Your task to perform on an android device: install app "Booking.com: Hotels and more" Image 0: 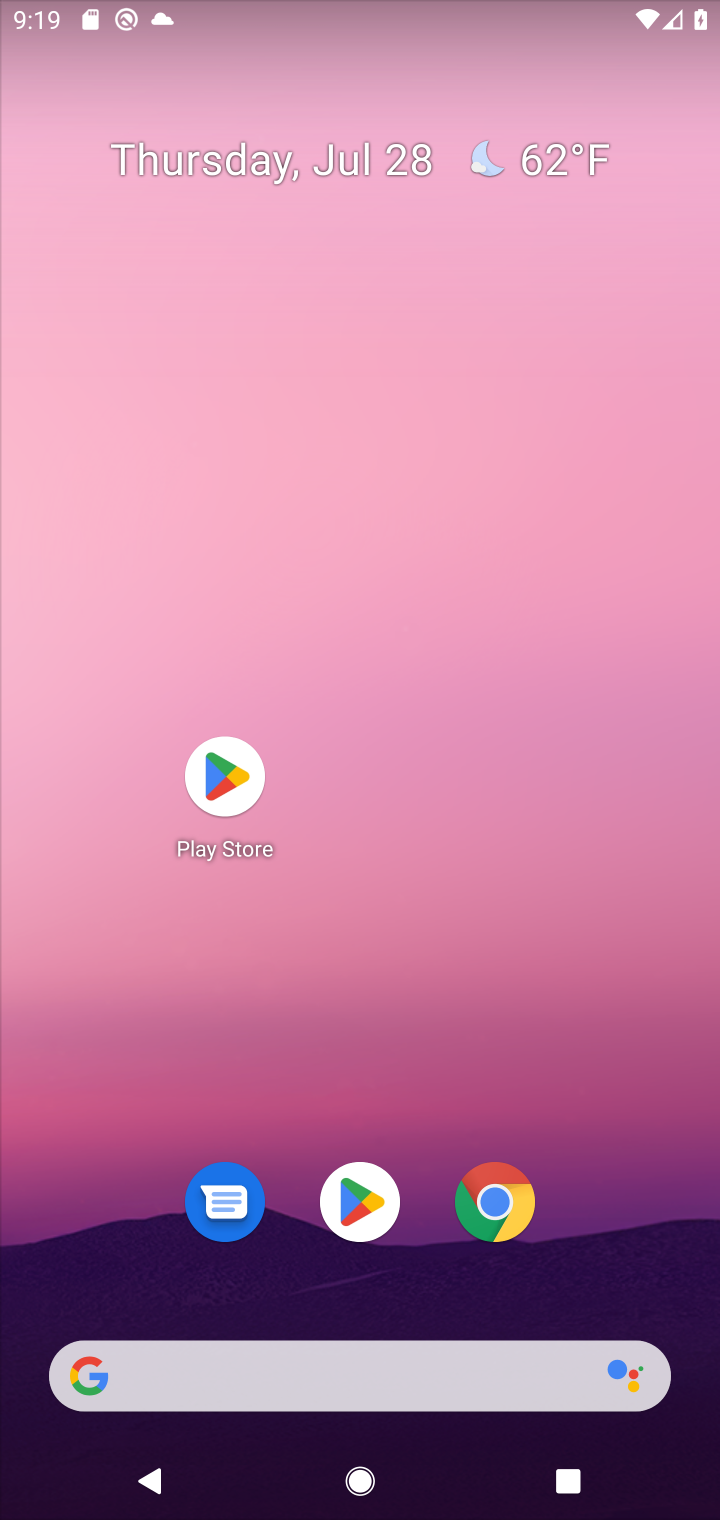
Step 0: click (356, 1198)
Your task to perform on an android device: install app "Booking.com: Hotels and more" Image 1: 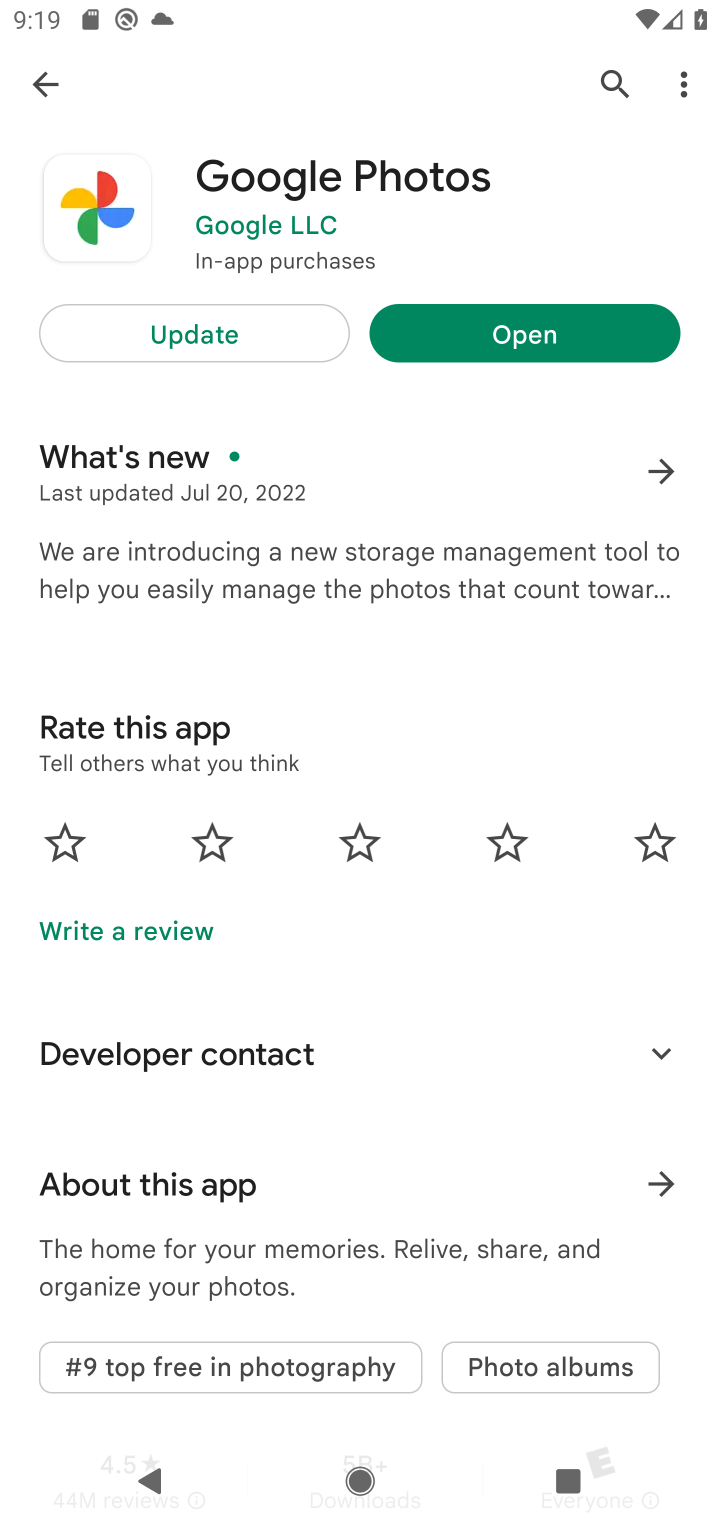
Step 1: click (40, 80)
Your task to perform on an android device: install app "Booking.com: Hotels and more" Image 2: 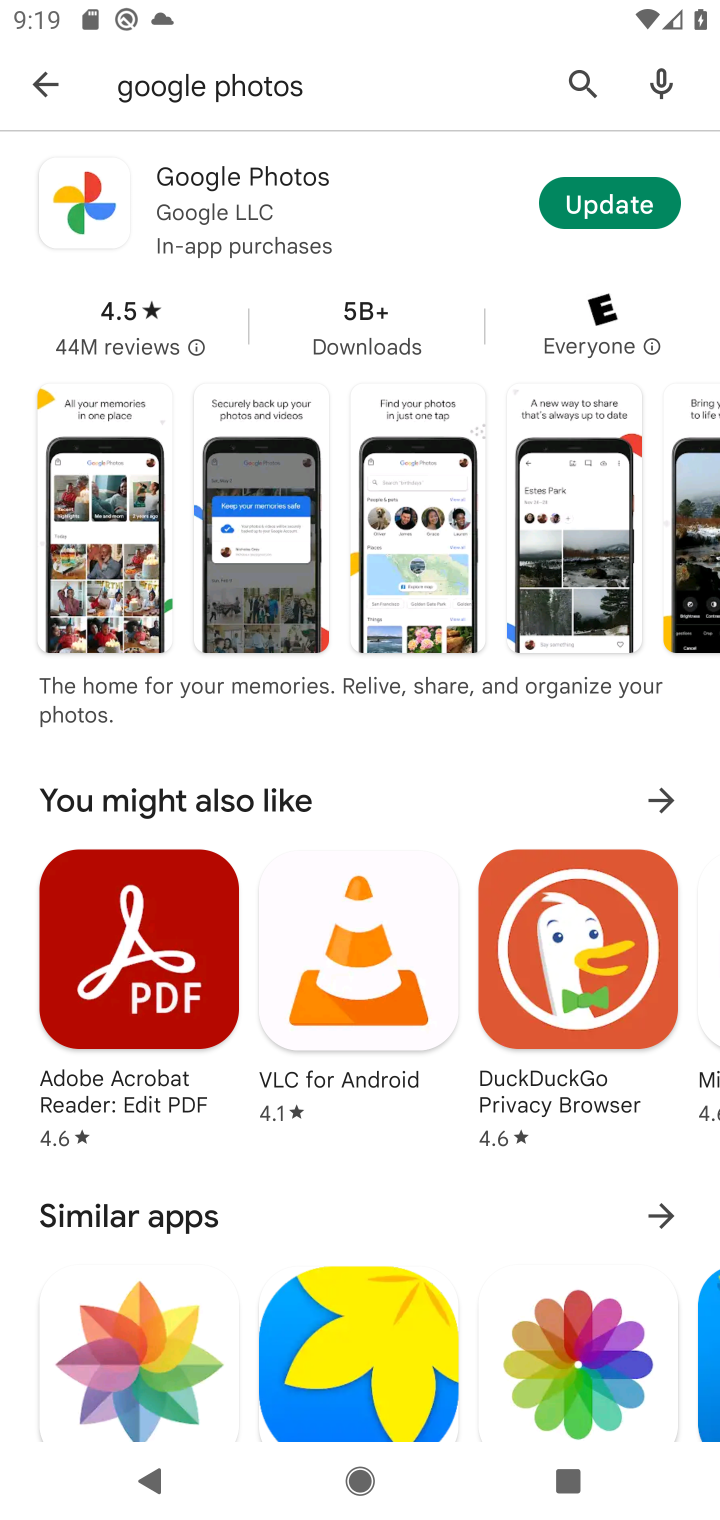
Step 2: click (51, 77)
Your task to perform on an android device: install app "Booking.com: Hotels and more" Image 3: 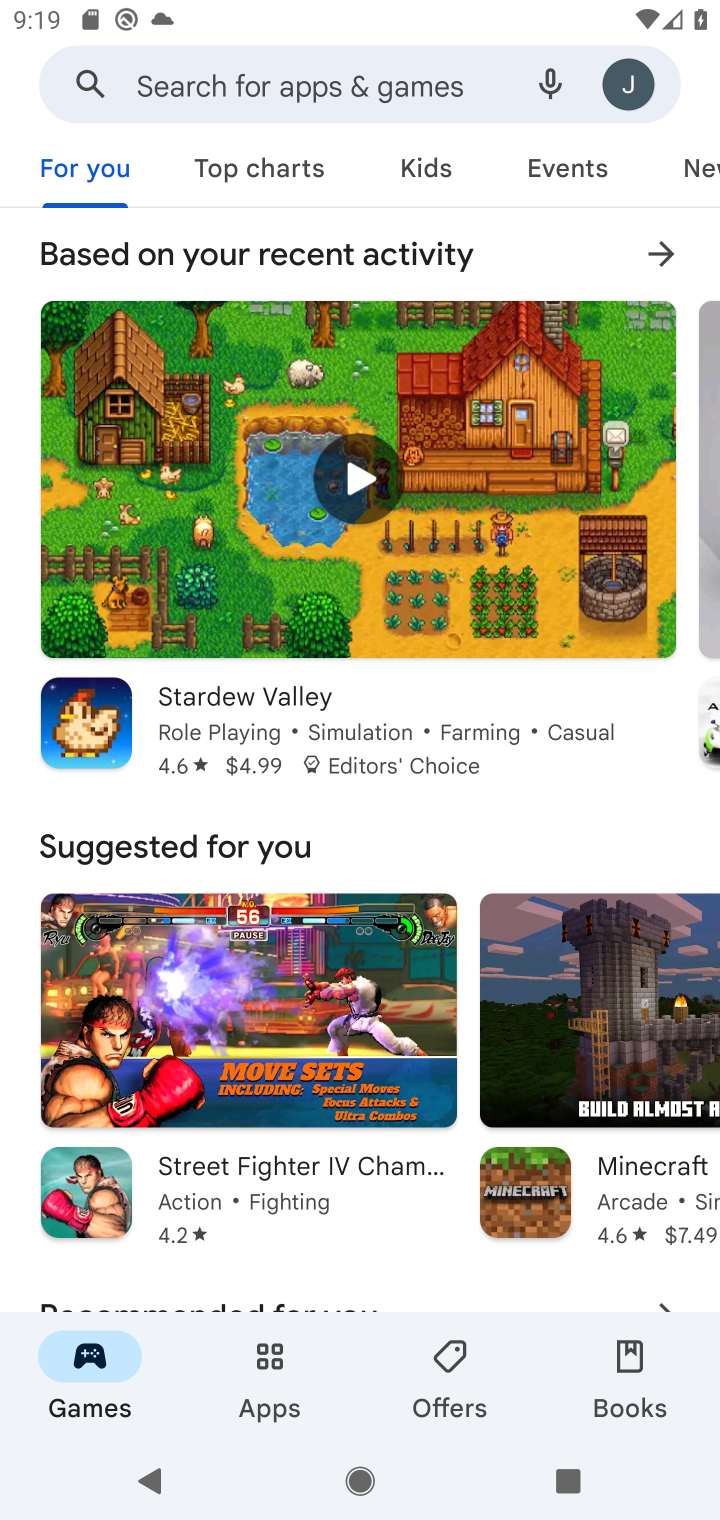
Step 3: click (189, 88)
Your task to perform on an android device: install app "Booking.com: Hotels and more" Image 4: 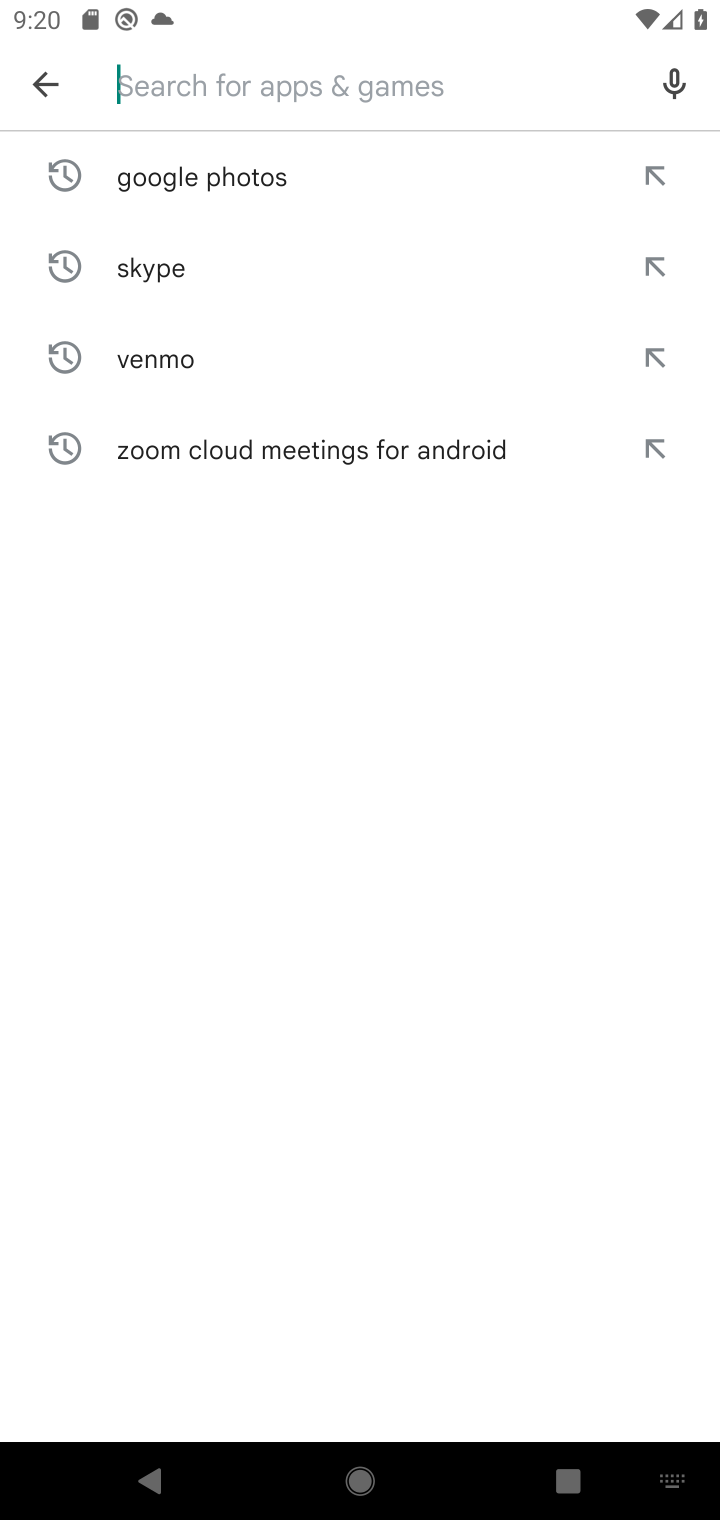
Step 4: type "Booking.com: Hotels and more"
Your task to perform on an android device: install app "Booking.com: Hotels and more" Image 5: 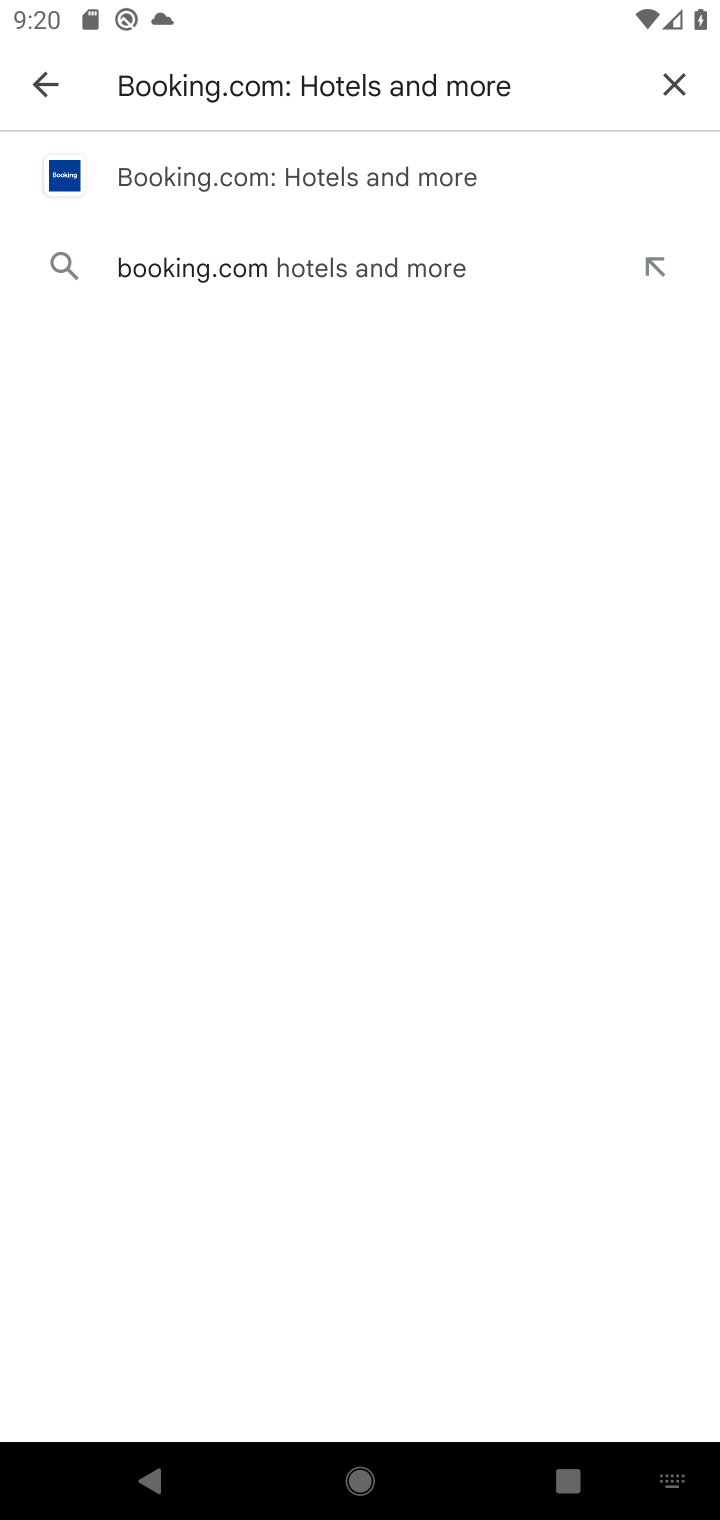
Step 5: click (247, 172)
Your task to perform on an android device: install app "Booking.com: Hotels and more" Image 6: 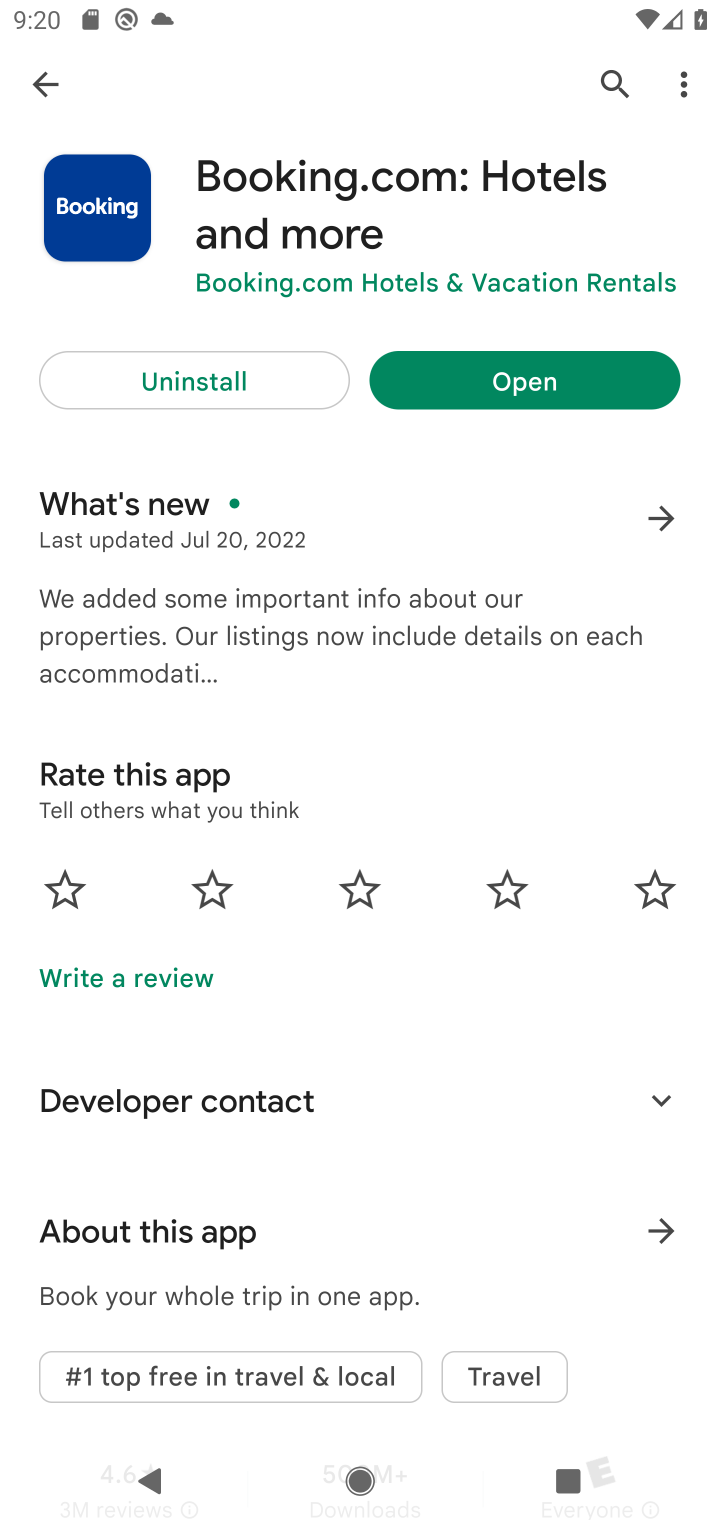
Step 6: task complete